Your task to perform on an android device: choose inbox layout in the gmail app Image 0: 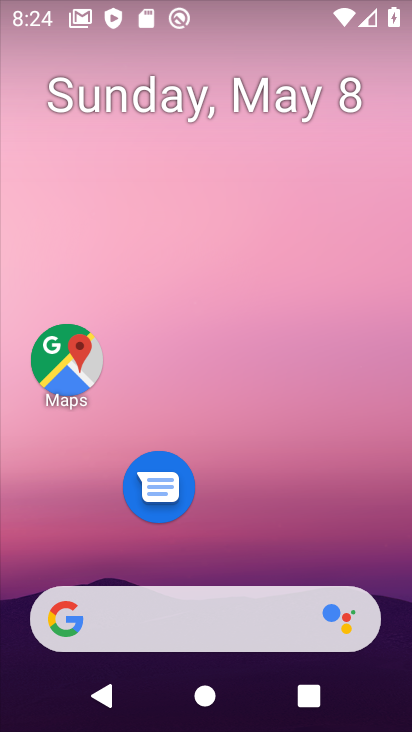
Step 0: drag from (296, 529) to (314, 10)
Your task to perform on an android device: choose inbox layout in the gmail app Image 1: 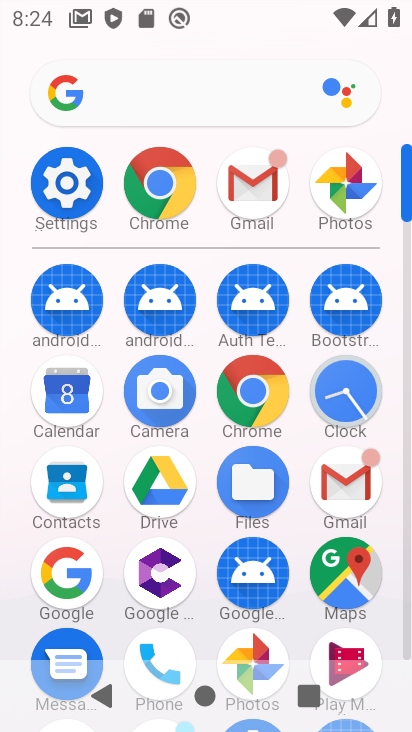
Step 1: click (251, 223)
Your task to perform on an android device: choose inbox layout in the gmail app Image 2: 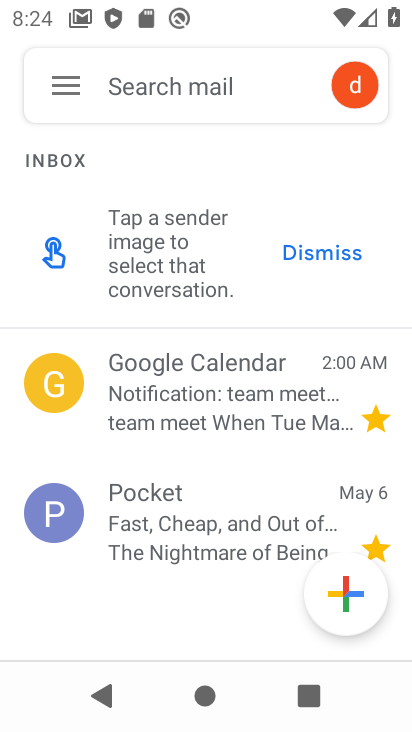
Step 2: click (239, 104)
Your task to perform on an android device: choose inbox layout in the gmail app Image 3: 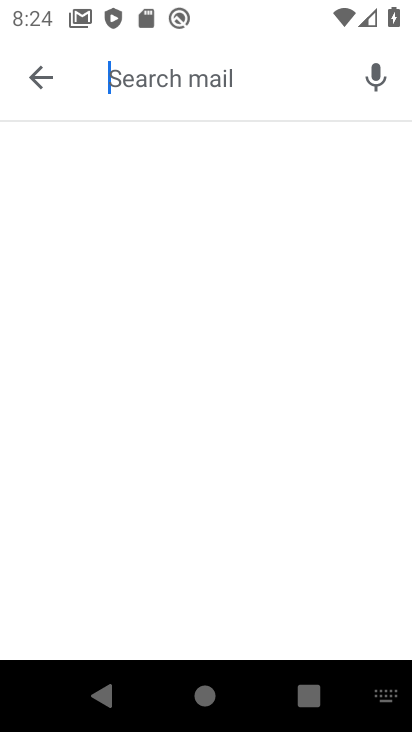
Step 3: click (30, 66)
Your task to perform on an android device: choose inbox layout in the gmail app Image 4: 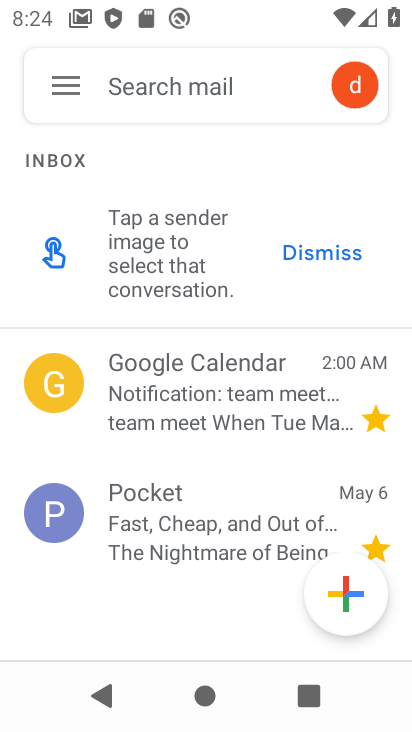
Step 4: click (30, 66)
Your task to perform on an android device: choose inbox layout in the gmail app Image 5: 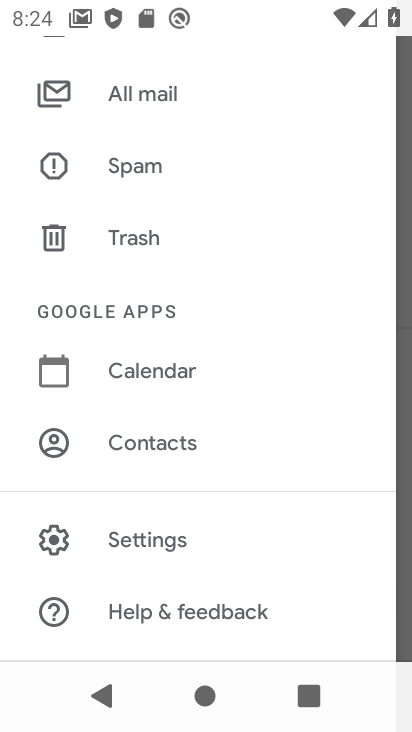
Step 5: click (110, 562)
Your task to perform on an android device: choose inbox layout in the gmail app Image 6: 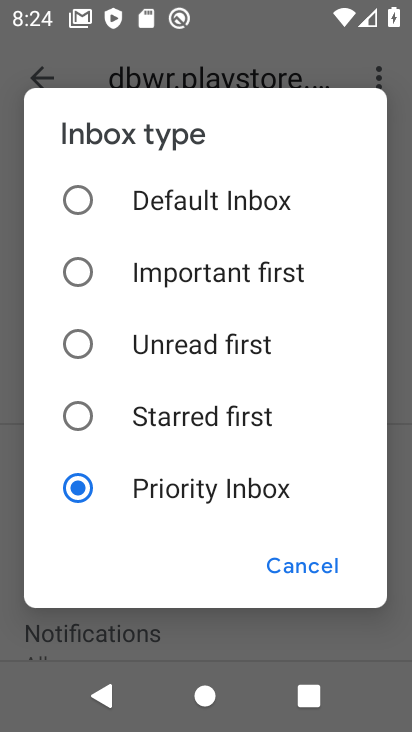
Step 6: click (277, 556)
Your task to perform on an android device: choose inbox layout in the gmail app Image 7: 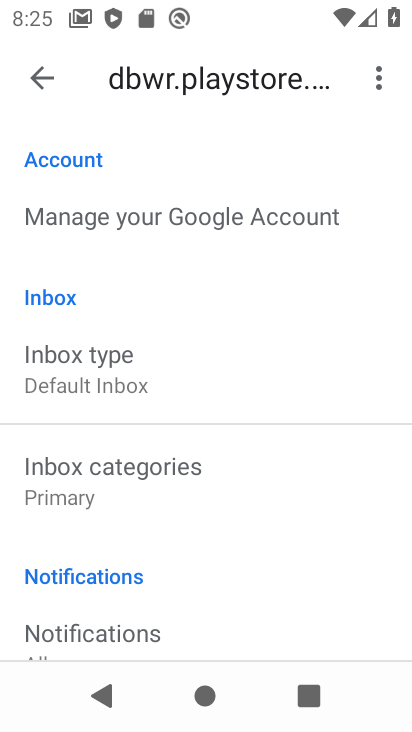
Step 7: click (52, 99)
Your task to perform on an android device: choose inbox layout in the gmail app Image 8: 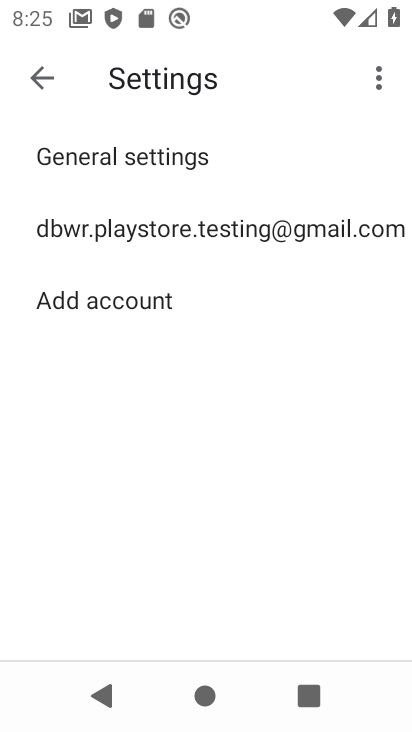
Step 8: click (43, 66)
Your task to perform on an android device: choose inbox layout in the gmail app Image 9: 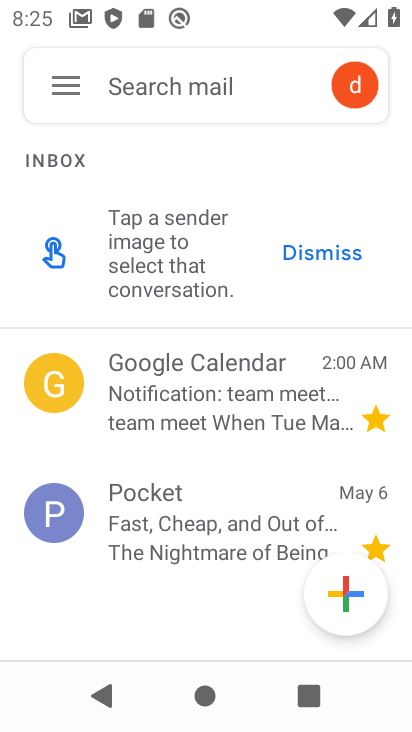
Step 9: click (56, 62)
Your task to perform on an android device: choose inbox layout in the gmail app Image 10: 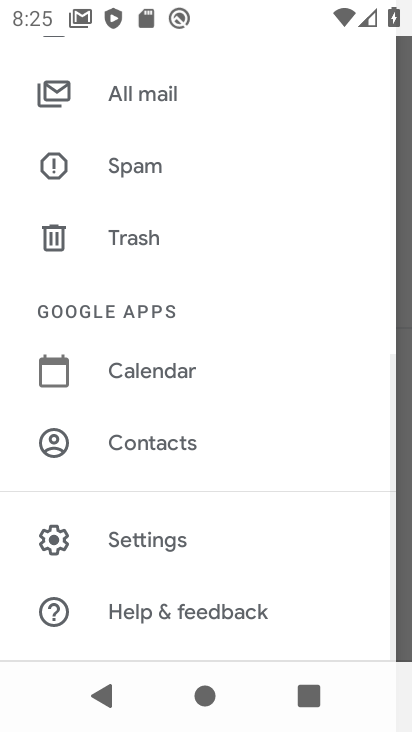
Step 10: task complete